Your task to perform on an android device: turn on the 24-hour format for clock Image 0: 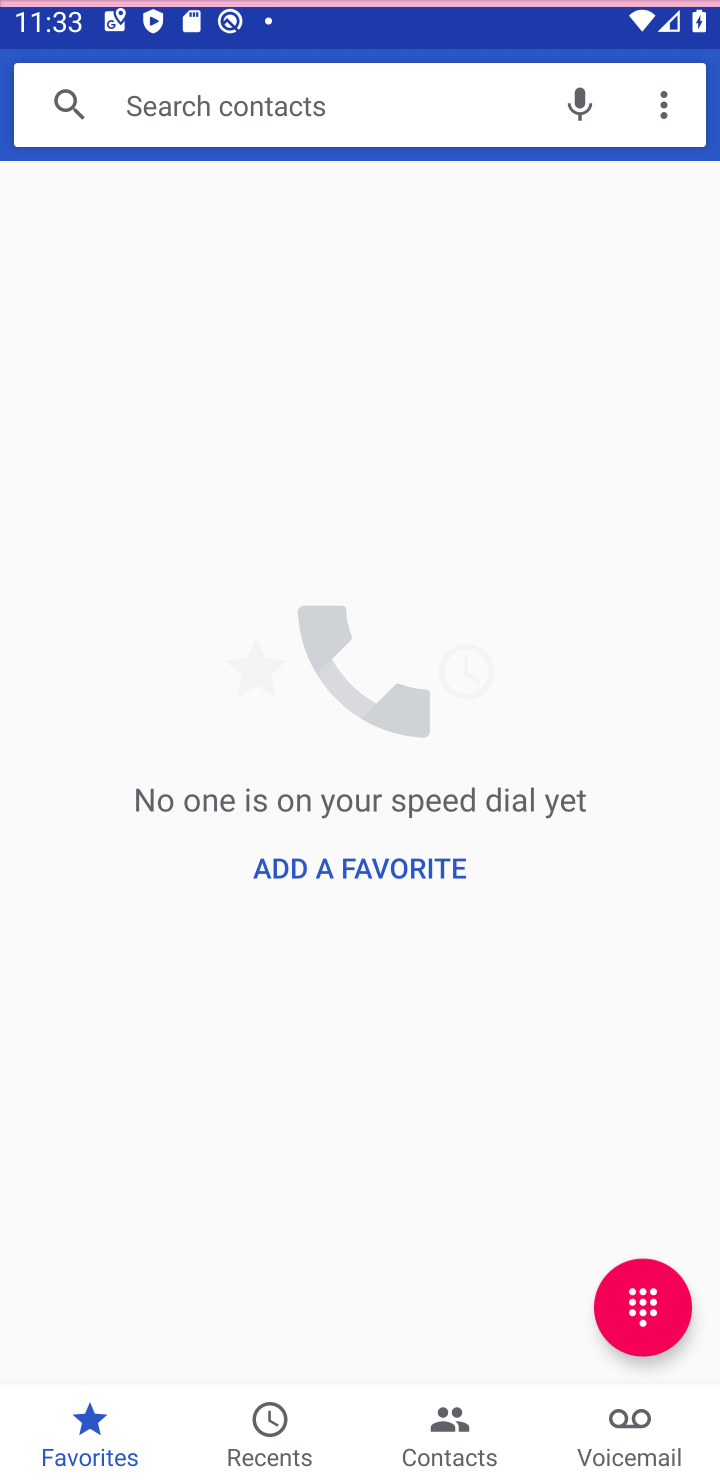
Step 0: press home button
Your task to perform on an android device: turn on the 24-hour format for clock Image 1: 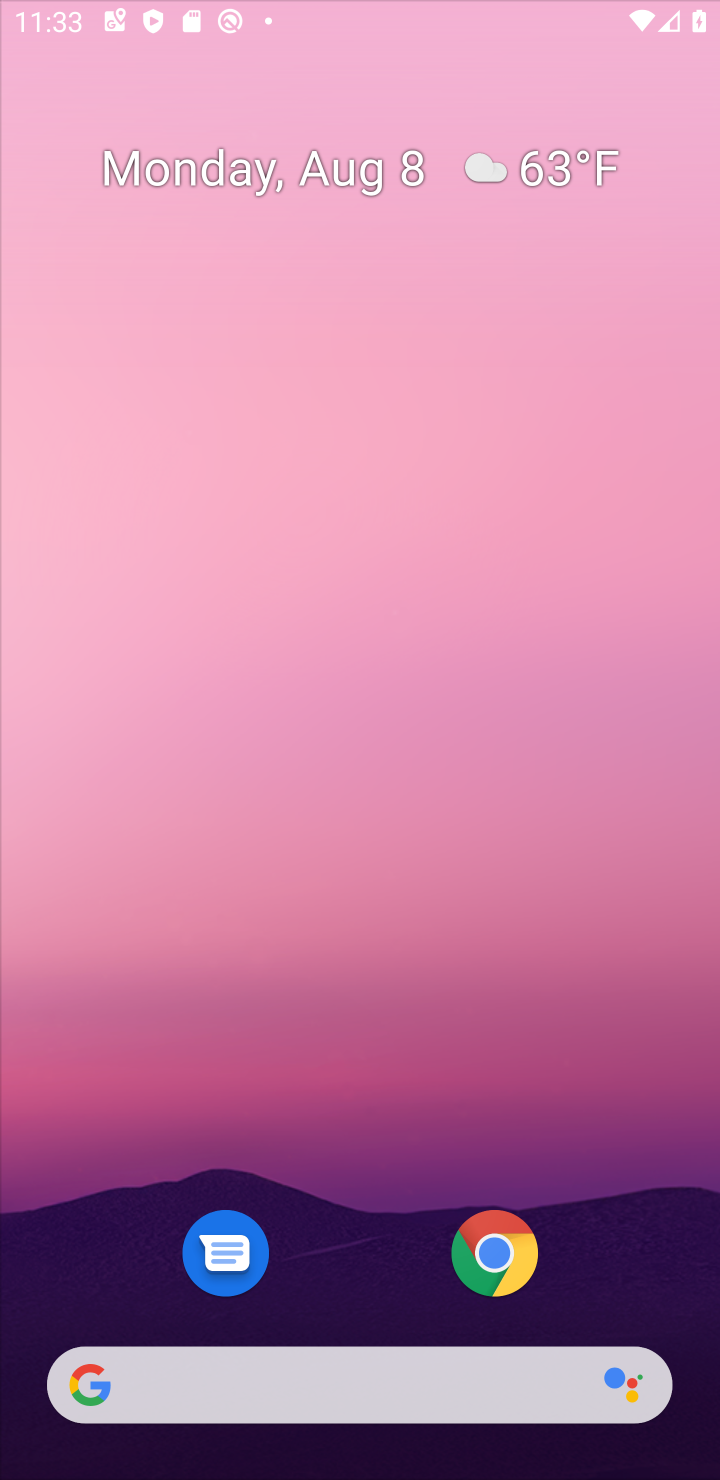
Step 1: drag from (334, 1033) to (336, 574)
Your task to perform on an android device: turn on the 24-hour format for clock Image 2: 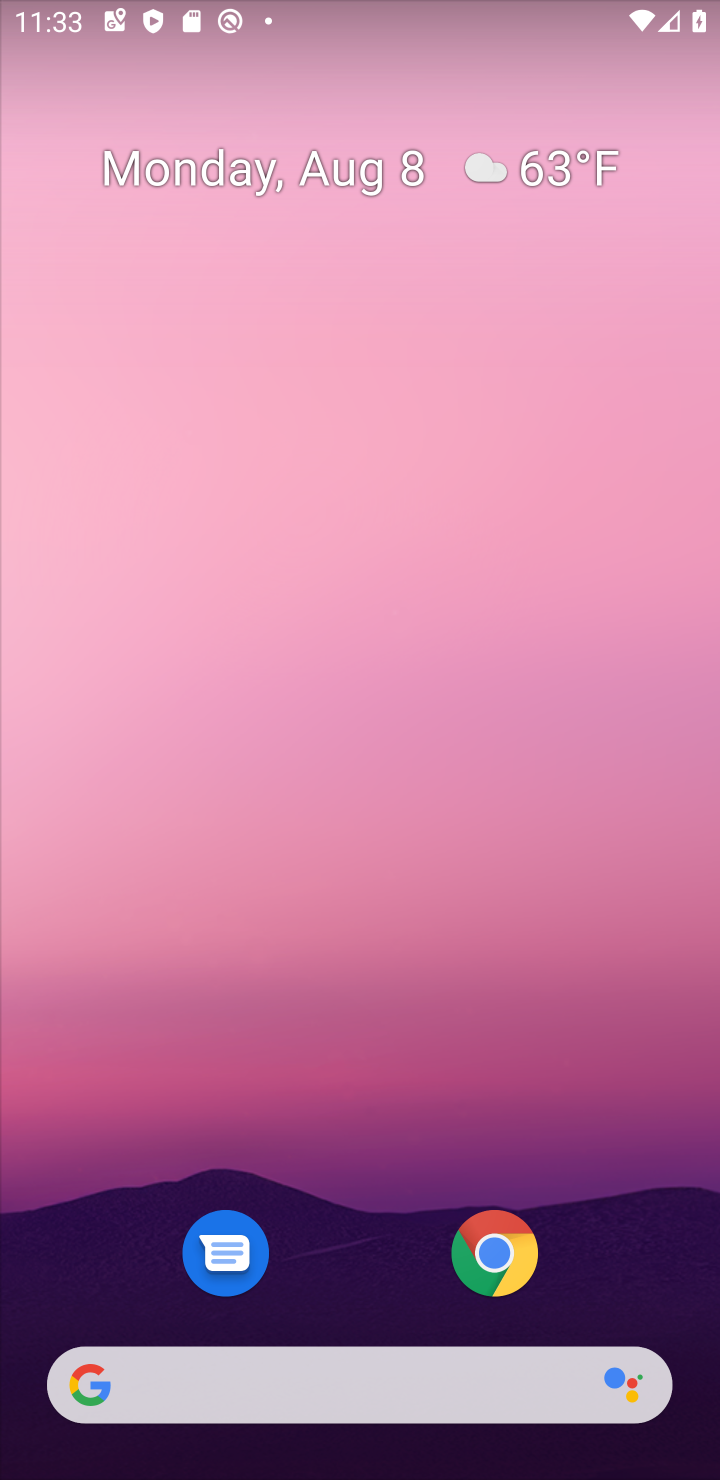
Step 2: drag from (415, 1315) to (422, 285)
Your task to perform on an android device: turn on the 24-hour format for clock Image 3: 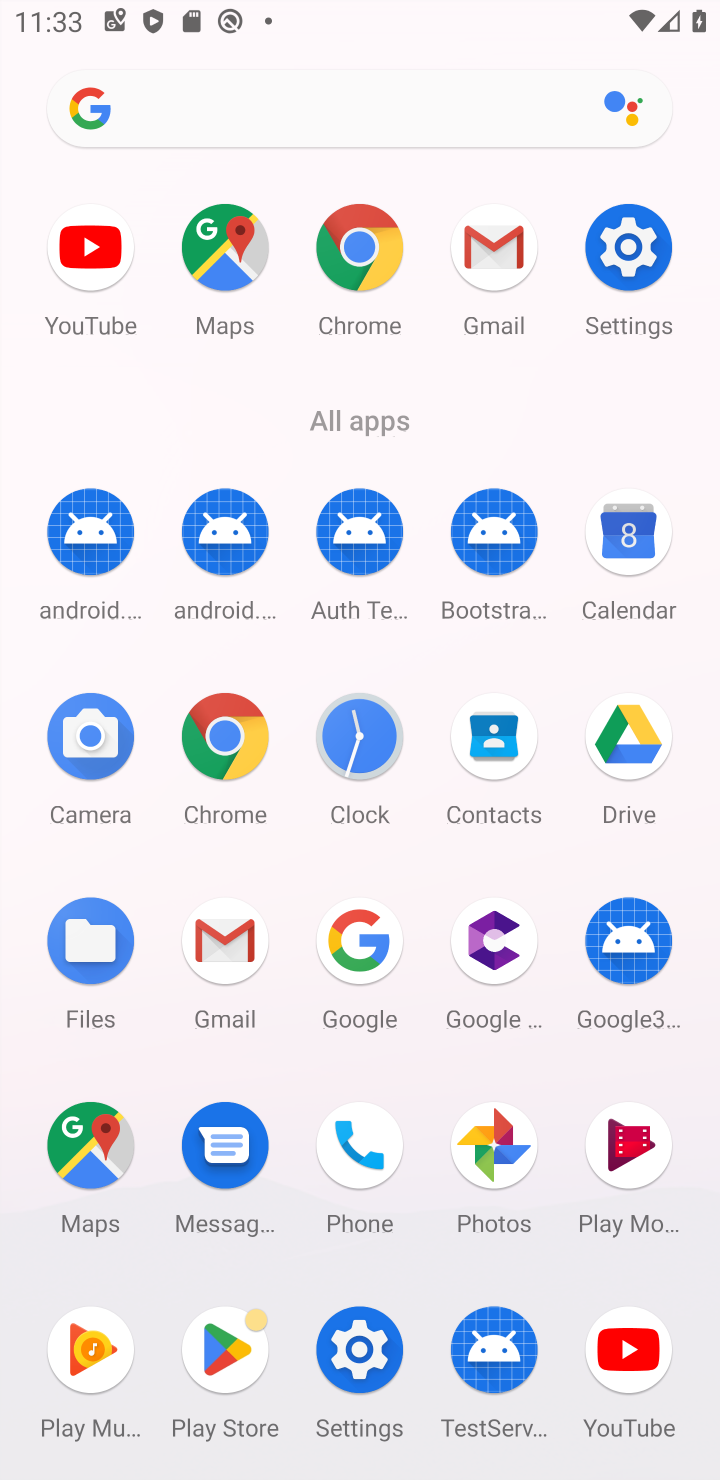
Step 3: click (337, 726)
Your task to perform on an android device: turn on the 24-hour format for clock Image 4: 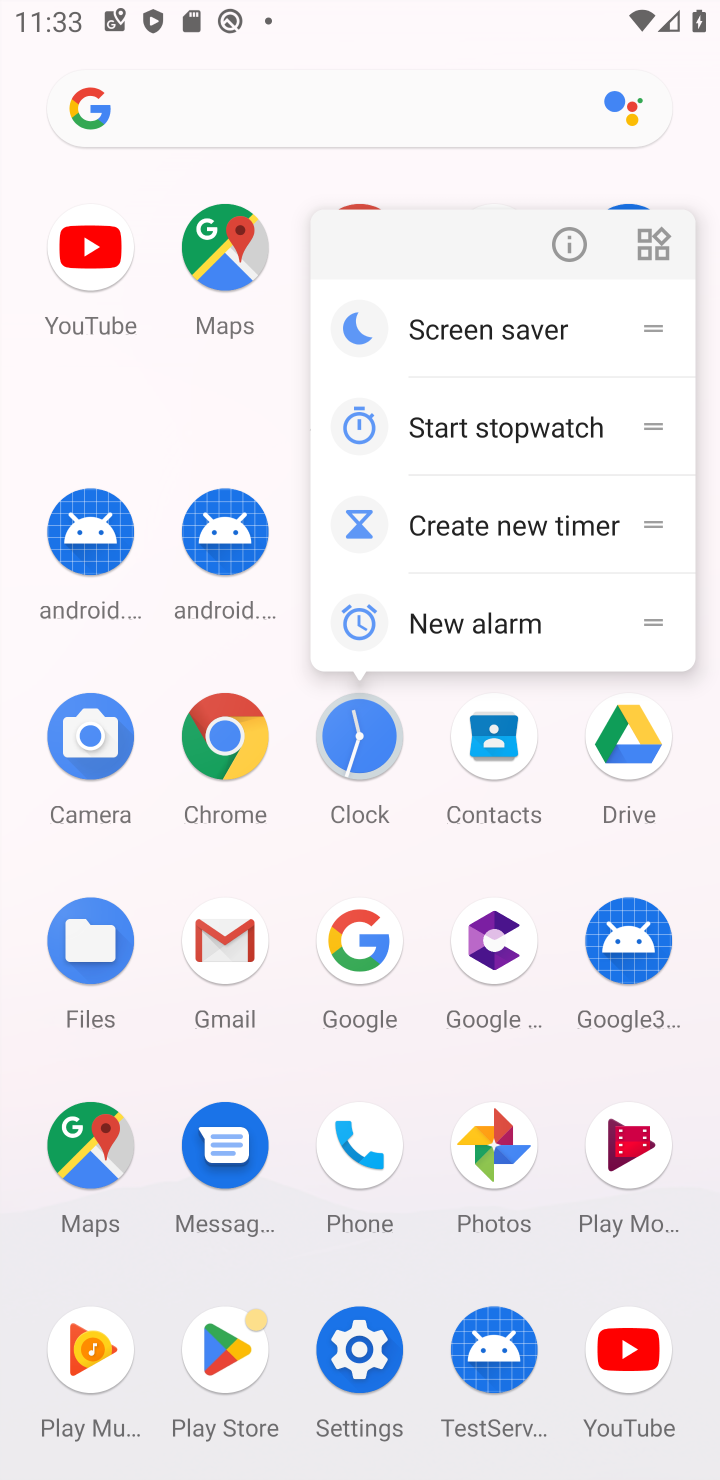
Step 4: click (359, 733)
Your task to perform on an android device: turn on the 24-hour format for clock Image 5: 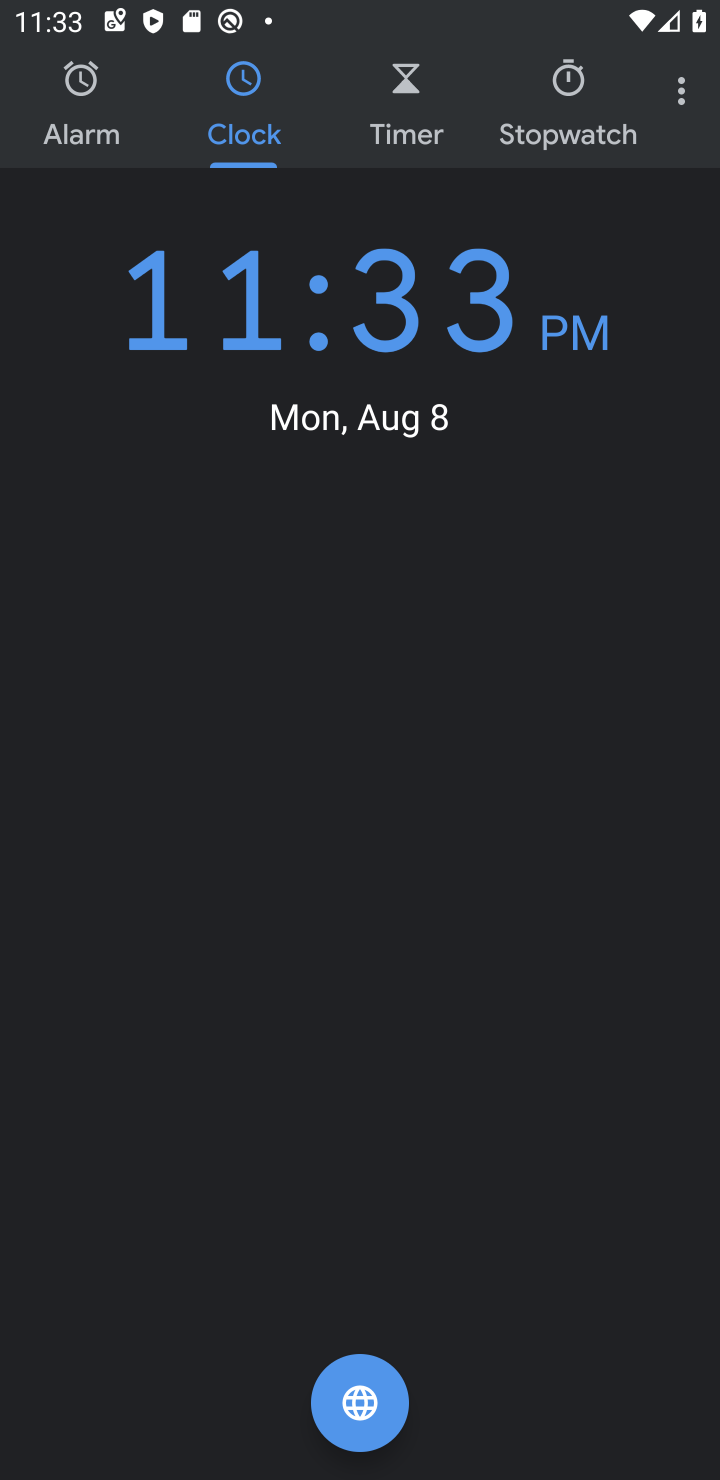
Step 5: click (681, 87)
Your task to perform on an android device: turn on the 24-hour format for clock Image 6: 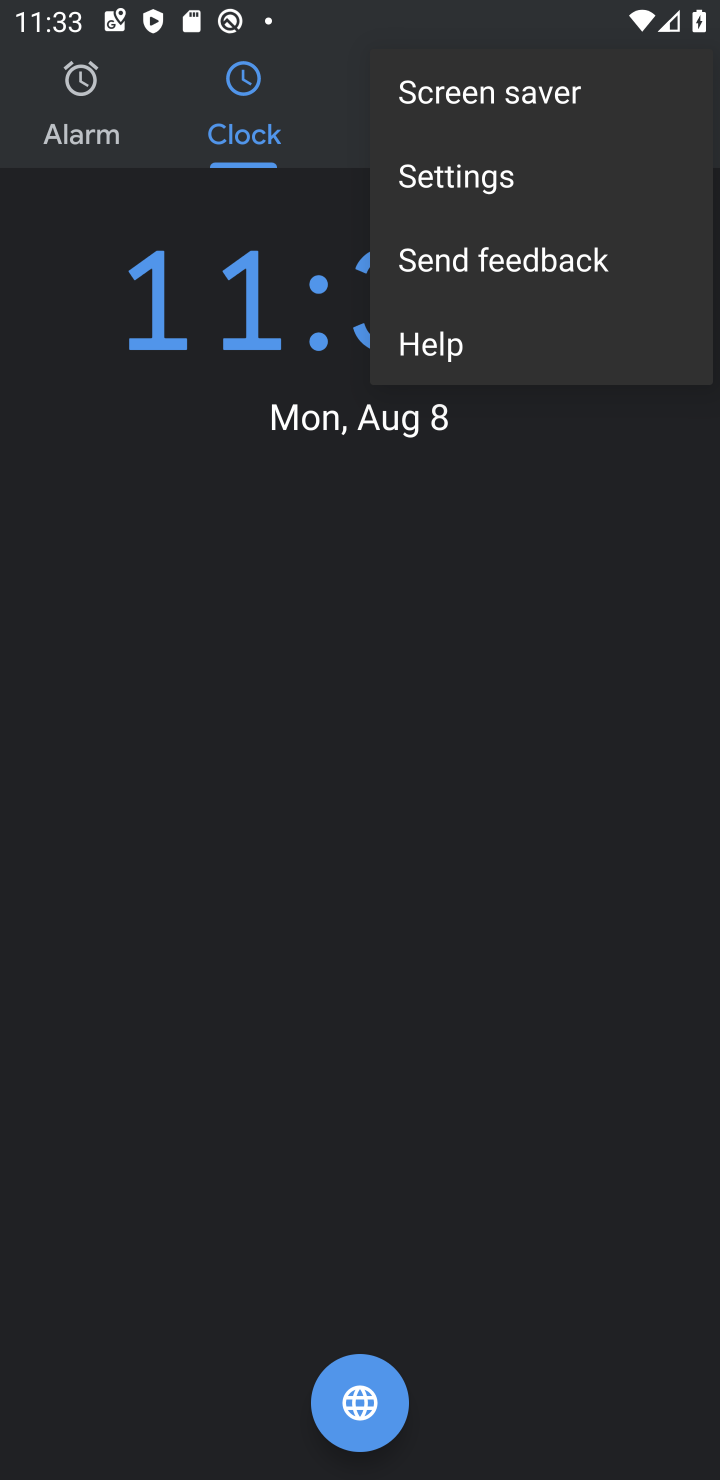
Step 6: click (526, 158)
Your task to perform on an android device: turn on the 24-hour format for clock Image 7: 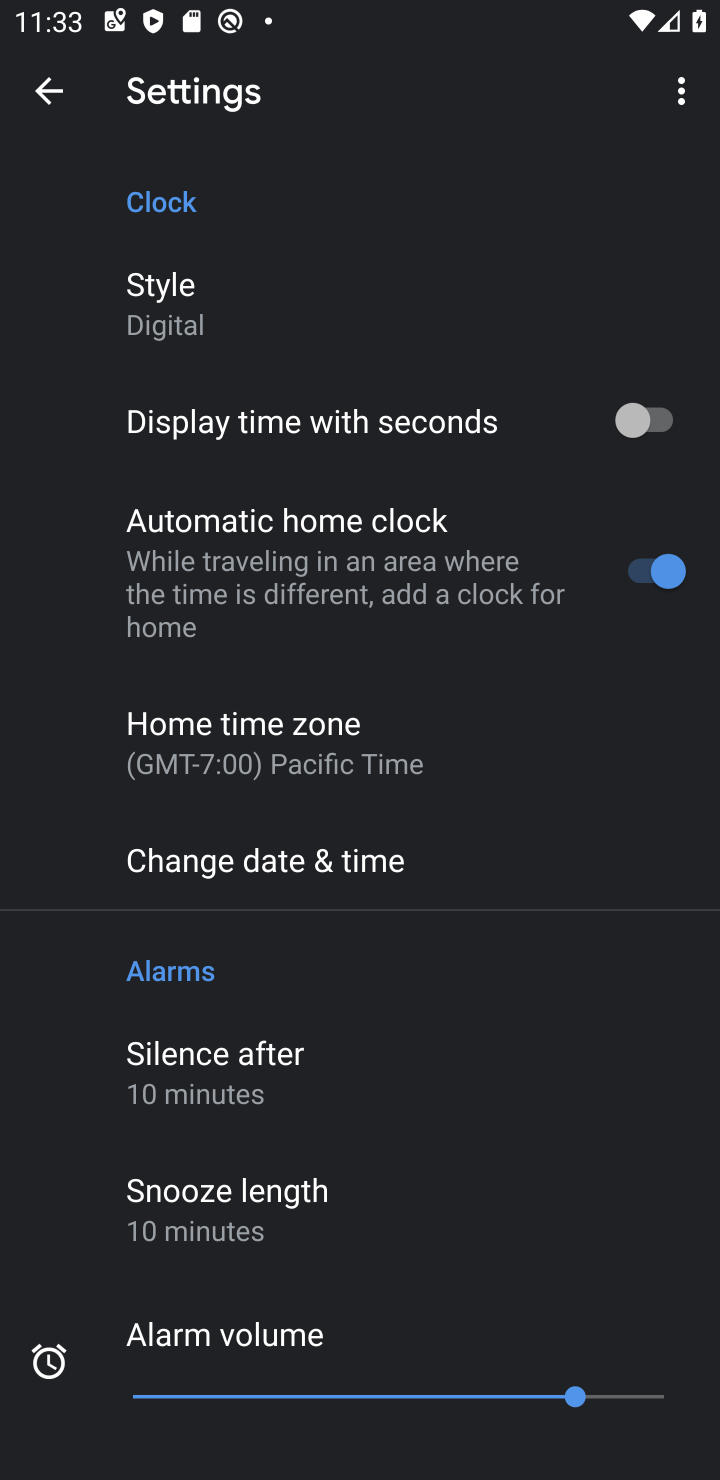
Step 7: click (363, 872)
Your task to perform on an android device: turn on the 24-hour format for clock Image 8: 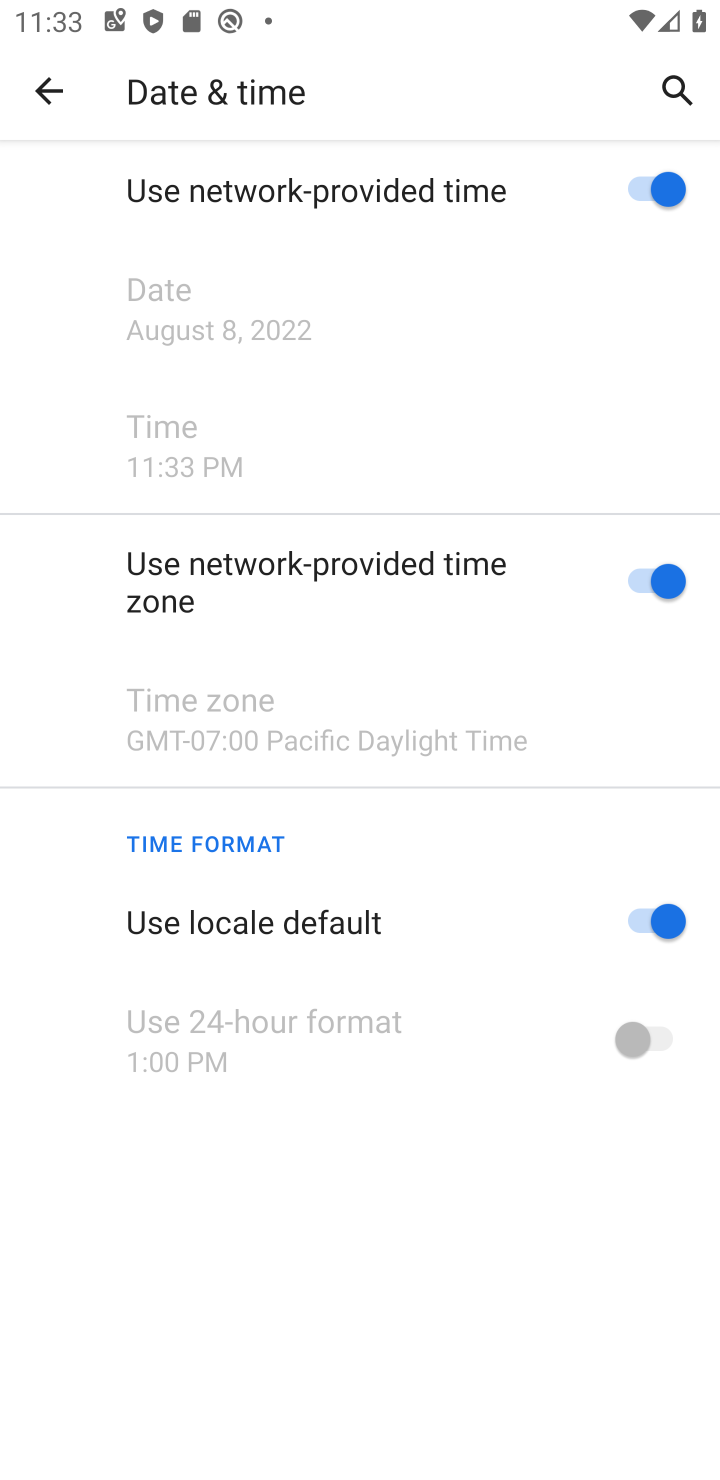
Step 8: click (635, 907)
Your task to perform on an android device: turn on the 24-hour format for clock Image 9: 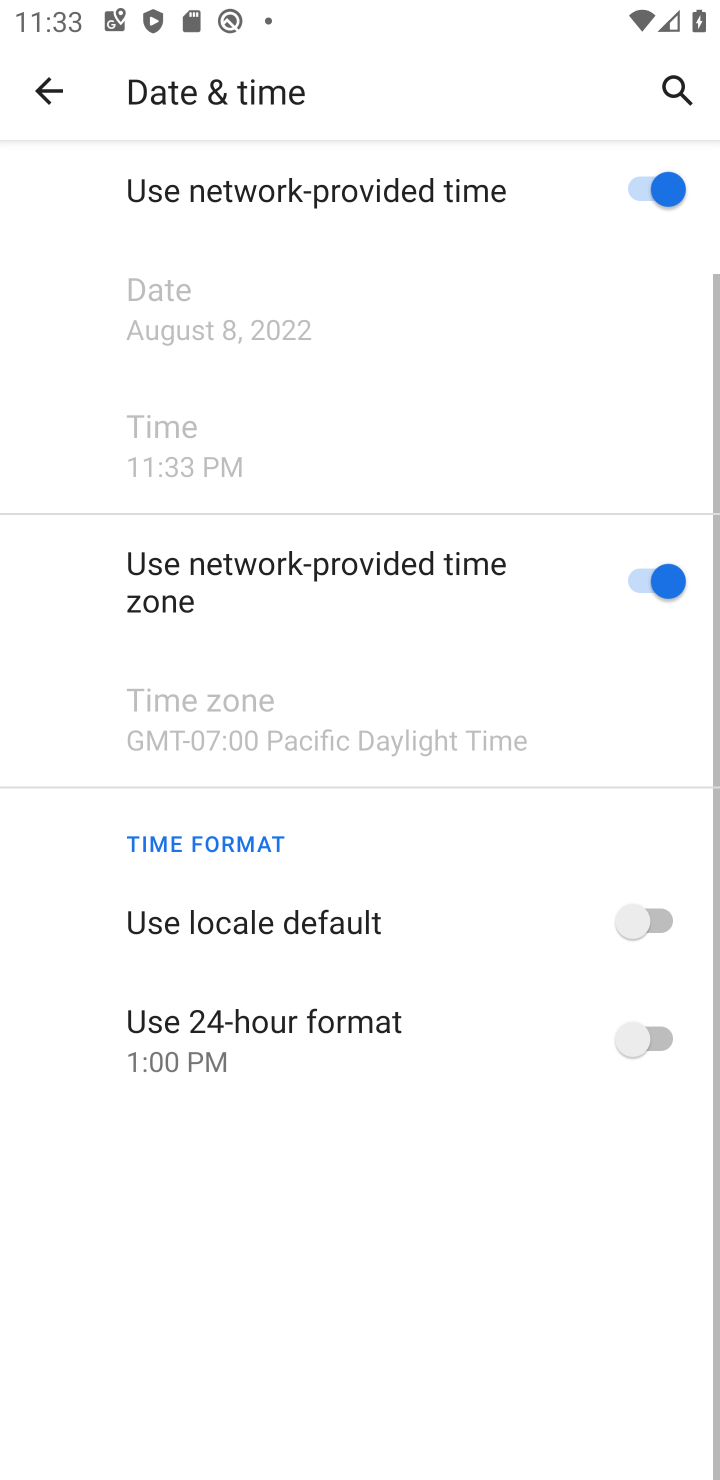
Step 9: click (618, 1033)
Your task to perform on an android device: turn on the 24-hour format for clock Image 10: 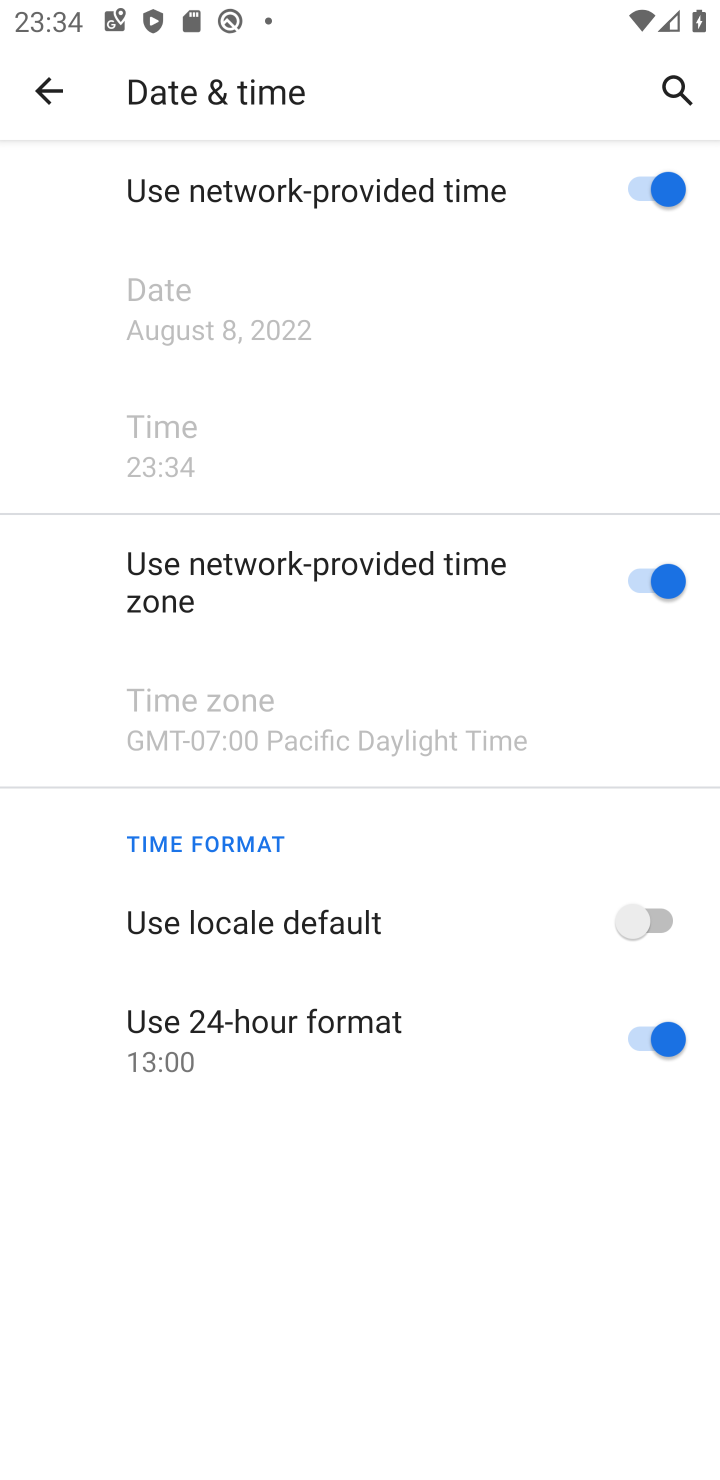
Step 10: task complete